Your task to perform on an android device: turn off smart reply in the gmail app Image 0: 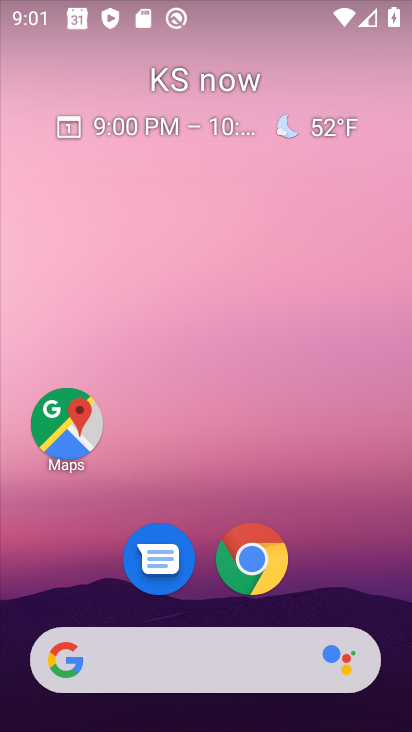
Step 0: drag from (327, 504) to (287, 3)
Your task to perform on an android device: turn off smart reply in the gmail app Image 1: 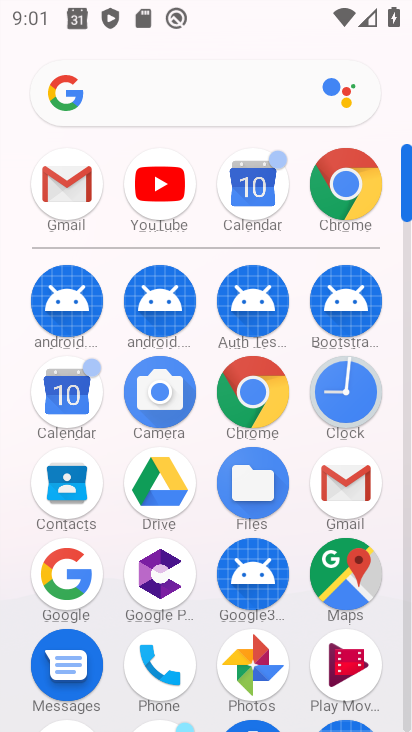
Step 1: drag from (19, 587) to (39, 291)
Your task to perform on an android device: turn off smart reply in the gmail app Image 2: 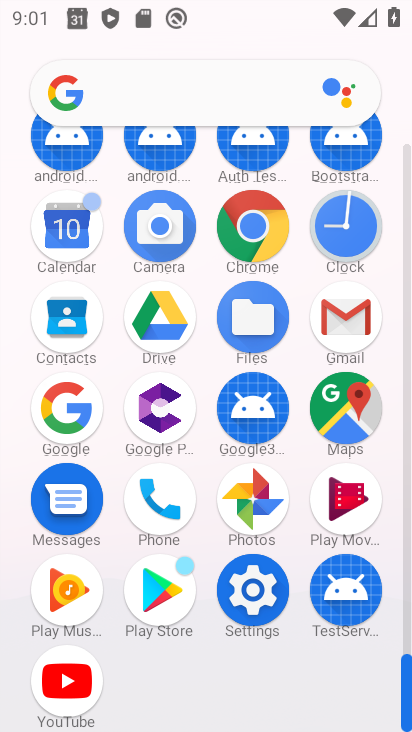
Step 2: drag from (17, 635) to (25, 303)
Your task to perform on an android device: turn off smart reply in the gmail app Image 3: 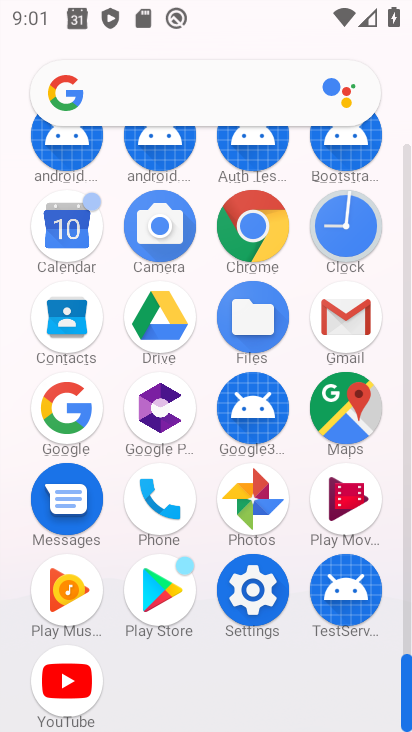
Step 3: click (346, 310)
Your task to perform on an android device: turn off smart reply in the gmail app Image 4: 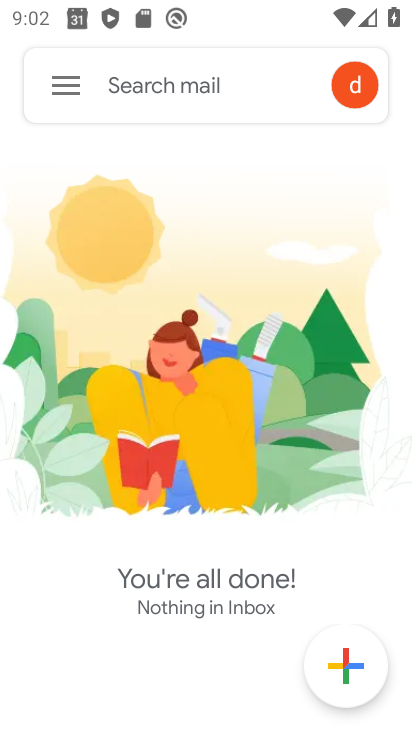
Step 4: click (72, 83)
Your task to perform on an android device: turn off smart reply in the gmail app Image 5: 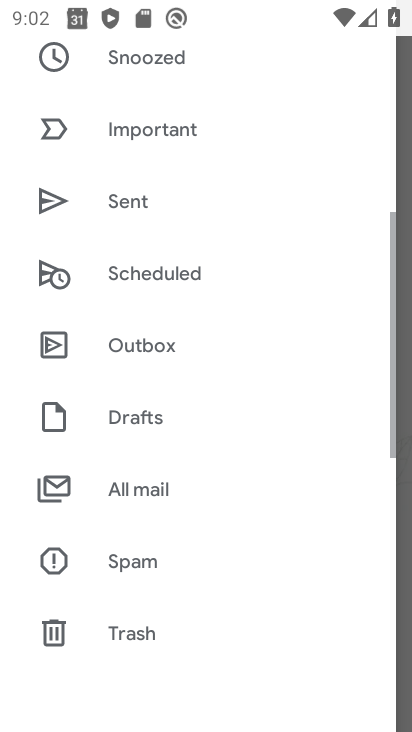
Step 5: drag from (195, 650) to (222, 153)
Your task to perform on an android device: turn off smart reply in the gmail app Image 6: 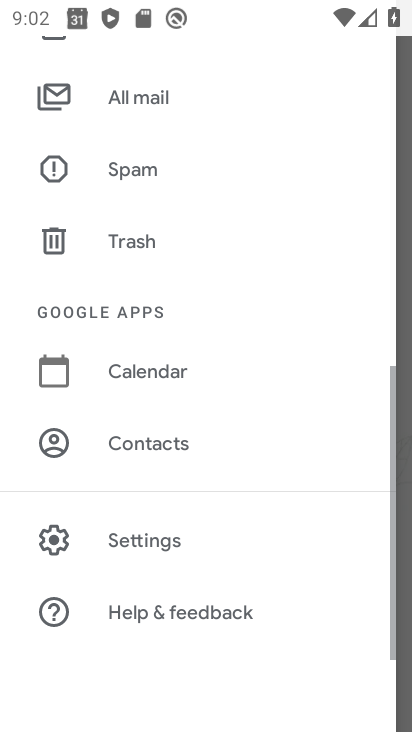
Step 6: click (151, 548)
Your task to perform on an android device: turn off smart reply in the gmail app Image 7: 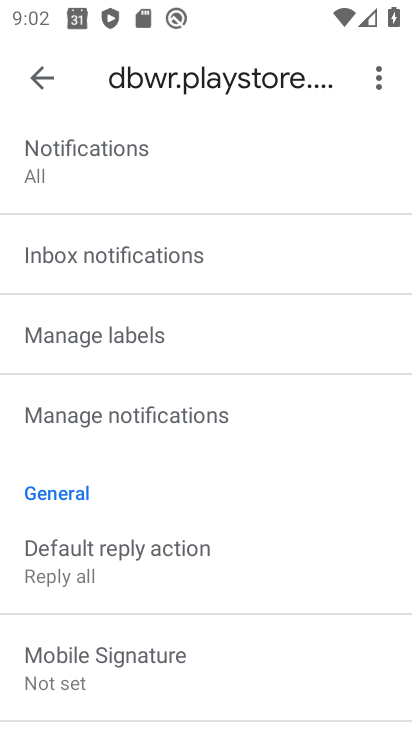
Step 7: drag from (220, 518) to (228, 115)
Your task to perform on an android device: turn off smart reply in the gmail app Image 8: 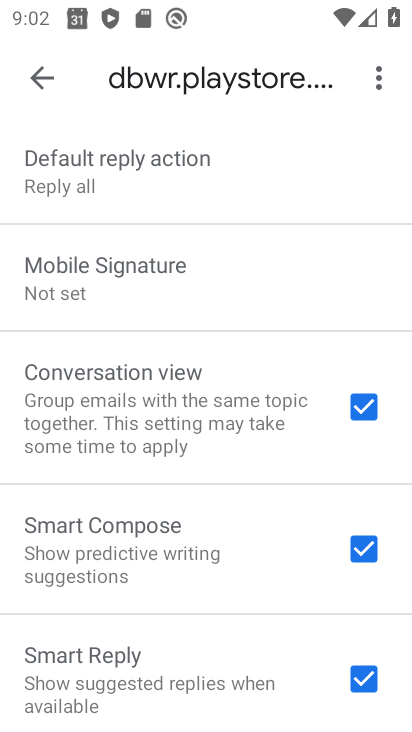
Step 8: drag from (153, 572) to (168, 356)
Your task to perform on an android device: turn off smart reply in the gmail app Image 9: 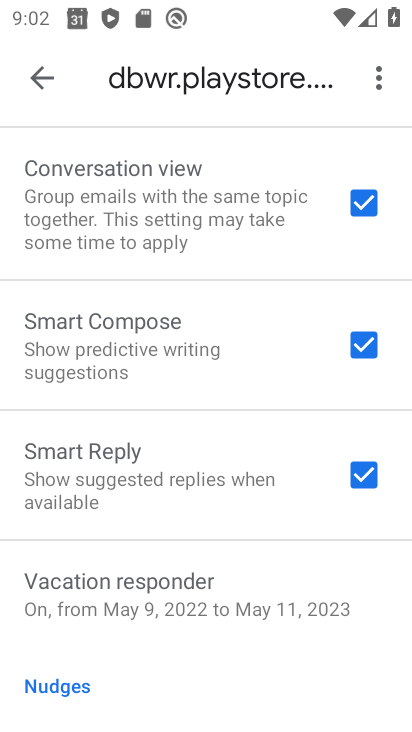
Step 9: click (359, 463)
Your task to perform on an android device: turn off smart reply in the gmail app Image 10: 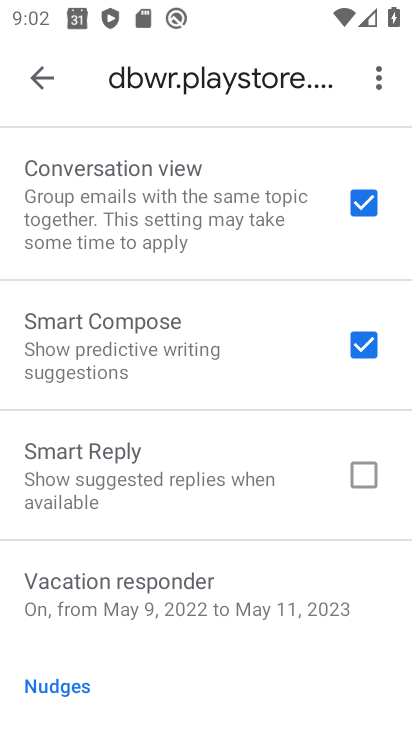
Step 10: task complete